Your task to perform on an android device: clear history in the chrome app Image 0: 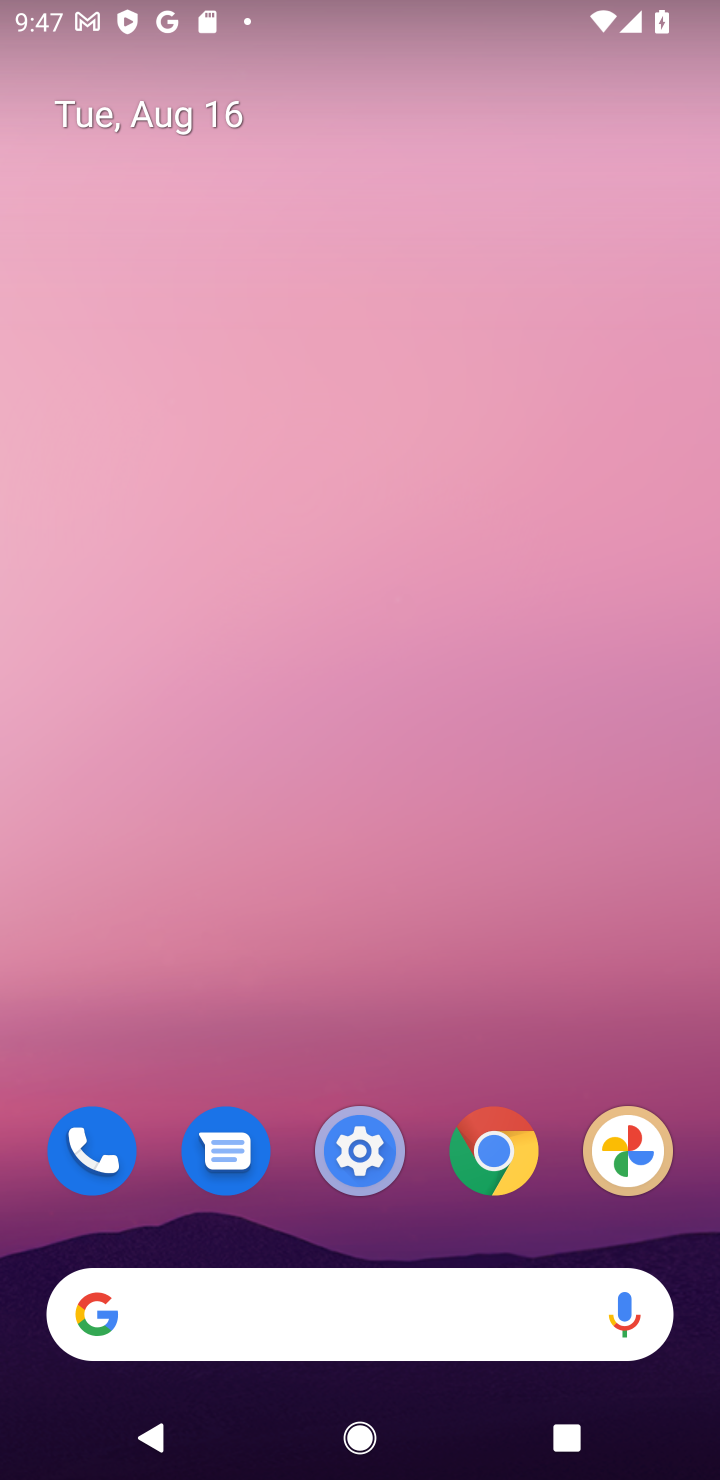
Step 0: click (508, 1143)
Your task to perform on an android device: clear history in the chrome app Image 1: 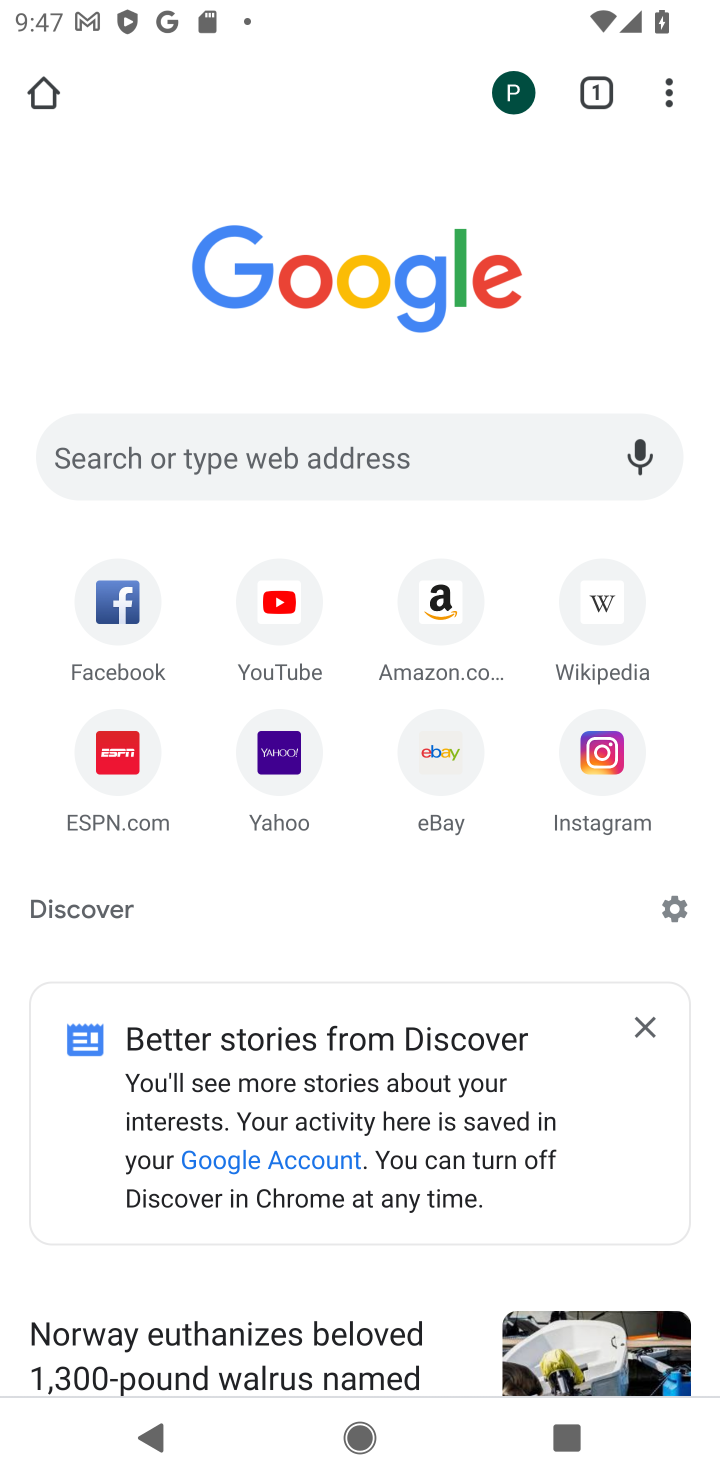
Step 1: click (668, 103)
Your task to perform on an android device: clear history in the chrome app Image 2: 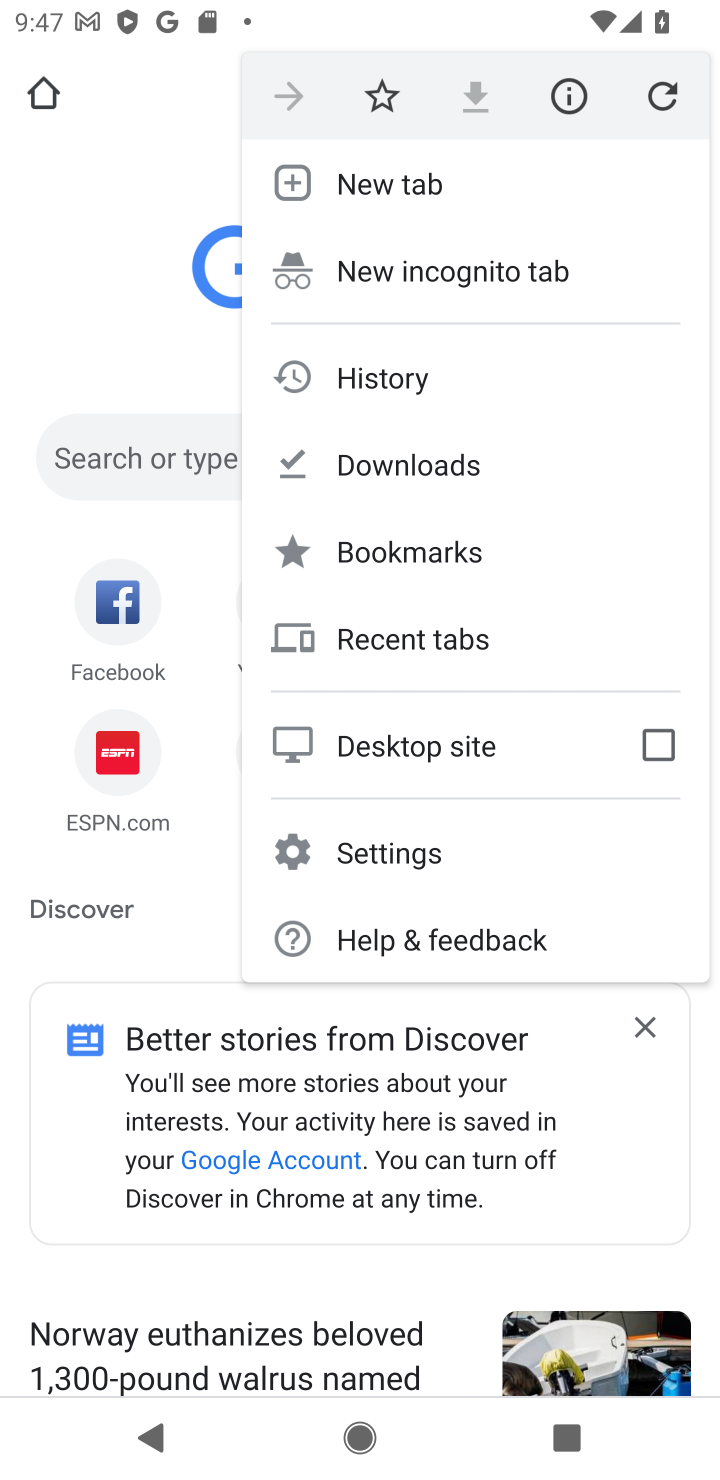
Step 2: click (408, 377)
Your task to perform on an android device: clear history in the chrome app Image 3: 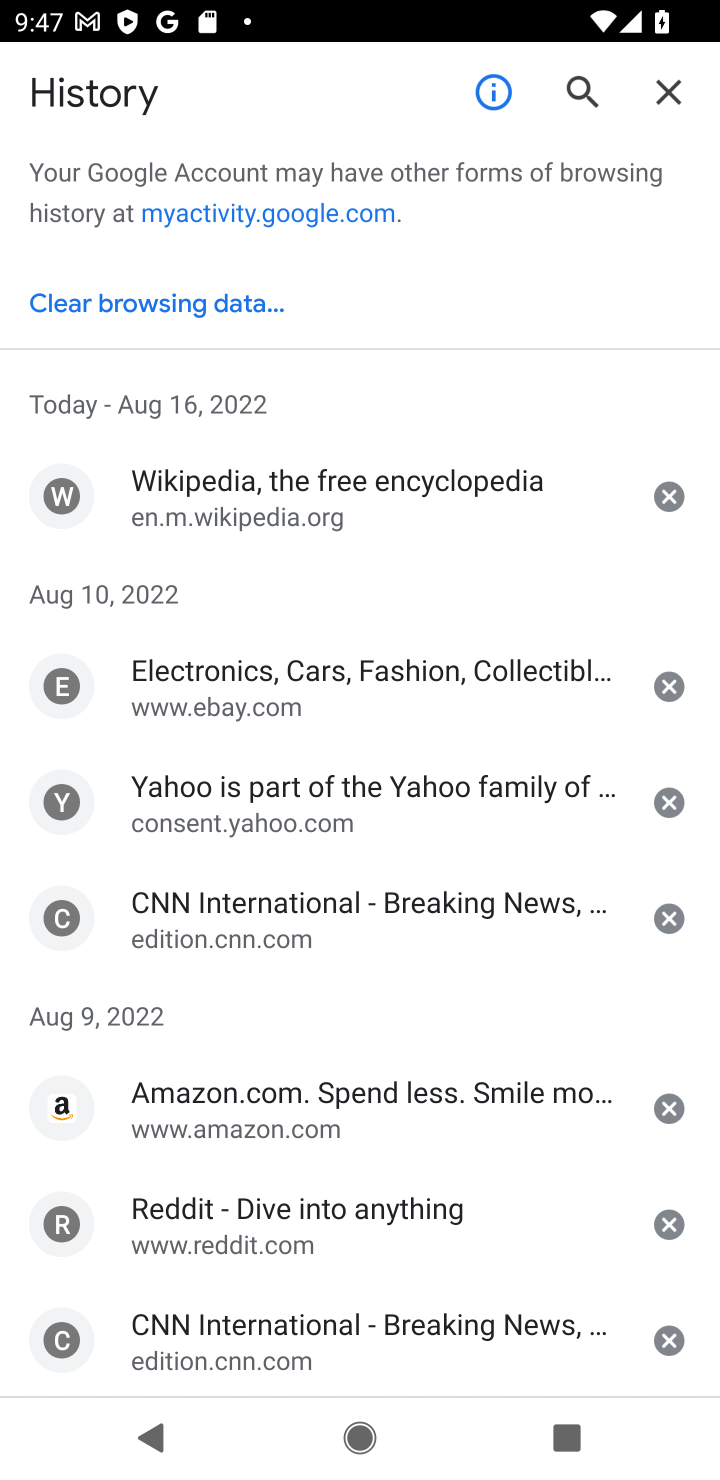
Step 3: click (222, 294)
Your task to perform on an android device: clear history in the chrome app Image 4: 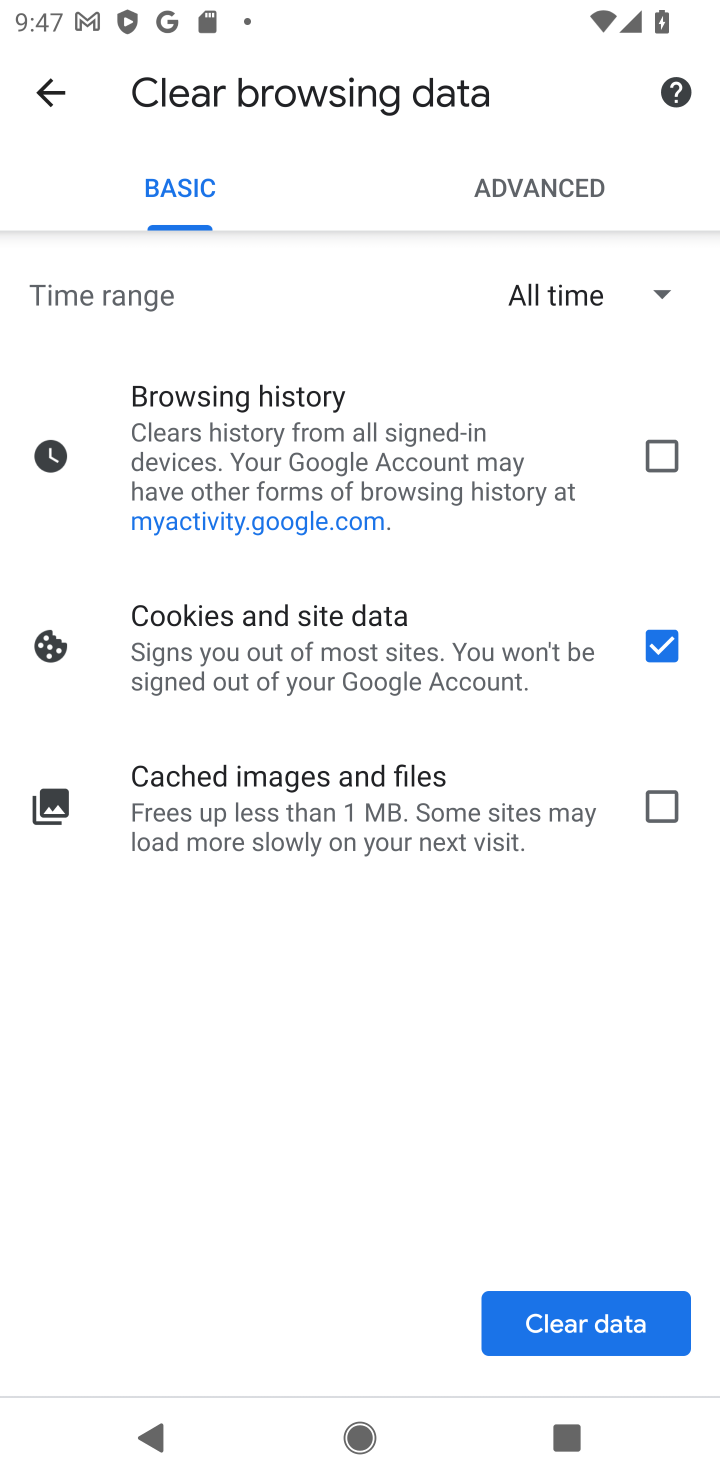
Step 4: click (651, 453)
Your task to perform on an android device: clear history in the chrome app Image 5: 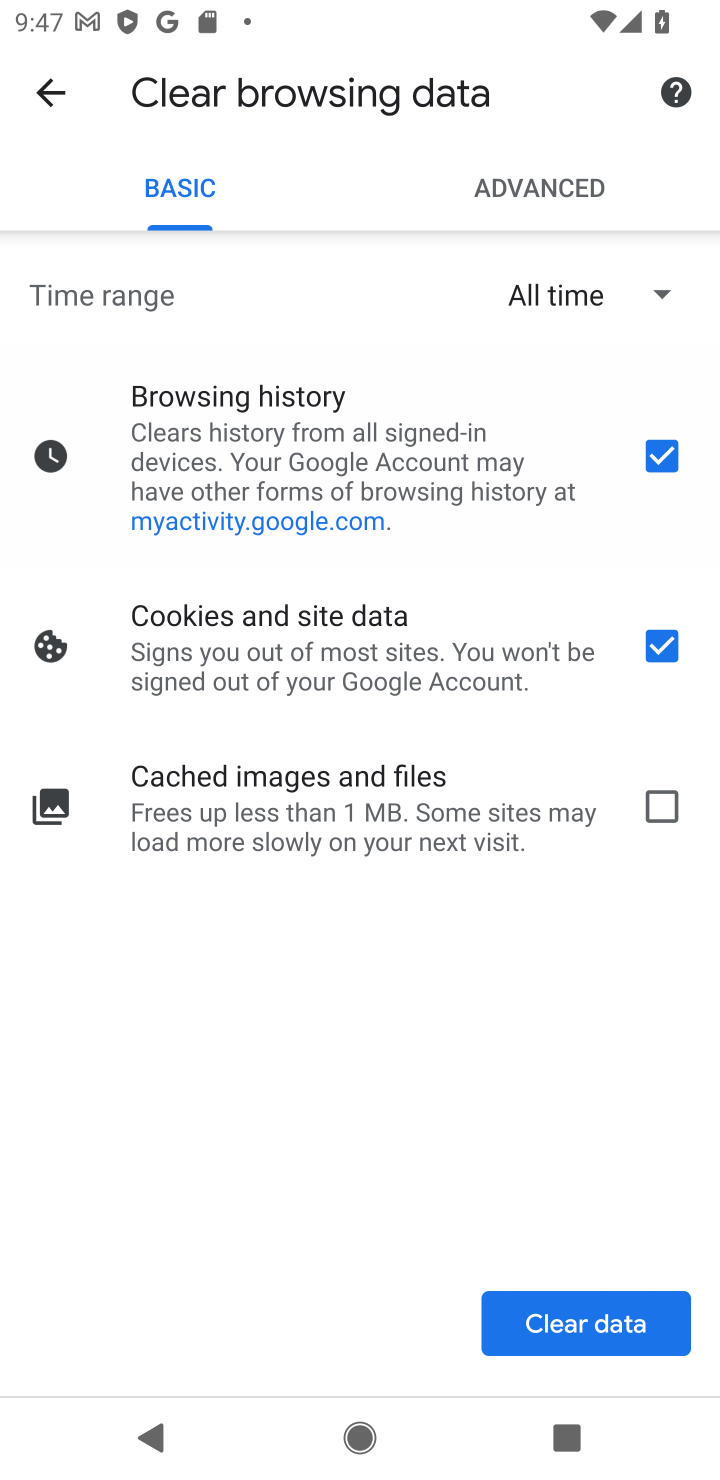
Step 5: click (657, 814)
Your task to perform on an android device: clear history in the chrome app Image 6: 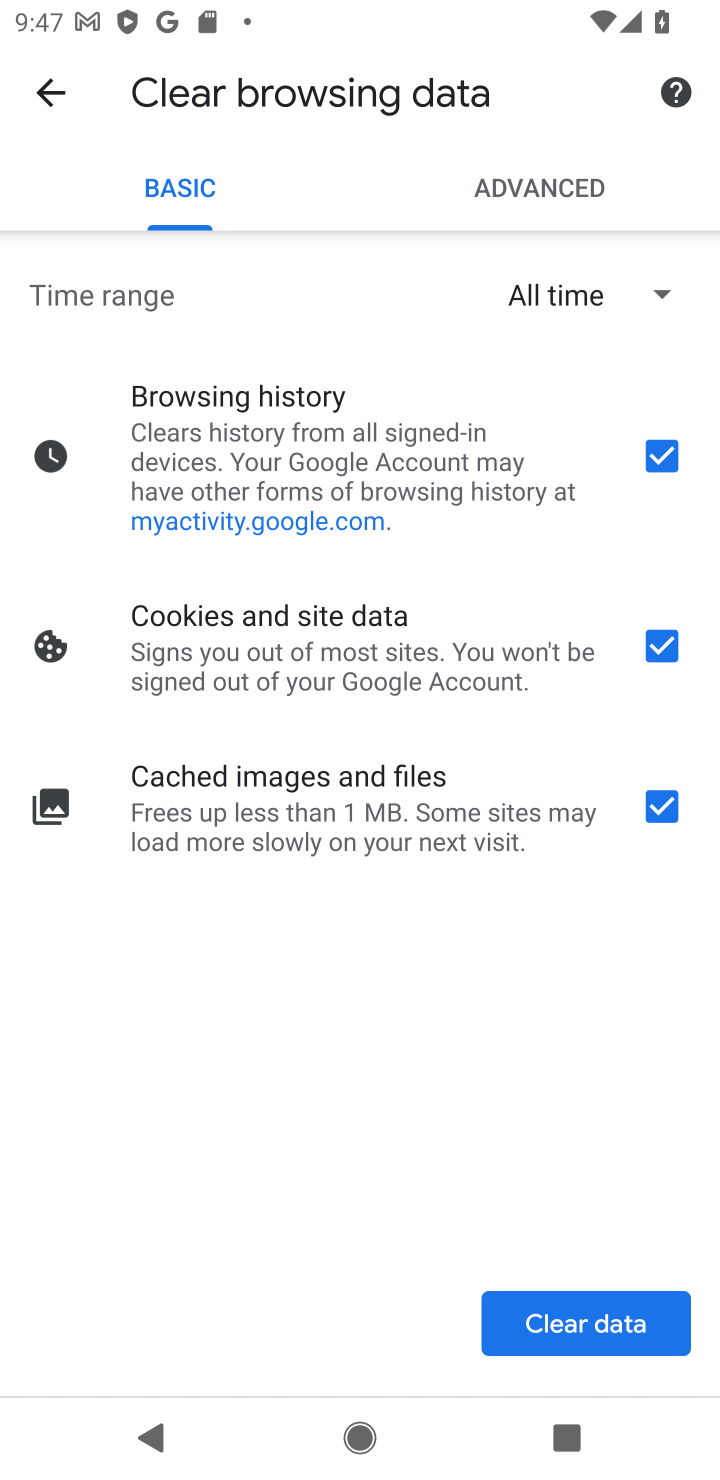
Step 6: click (541, 1315)
Your task to perform on an android device: clear history in the chrome app Image 7: 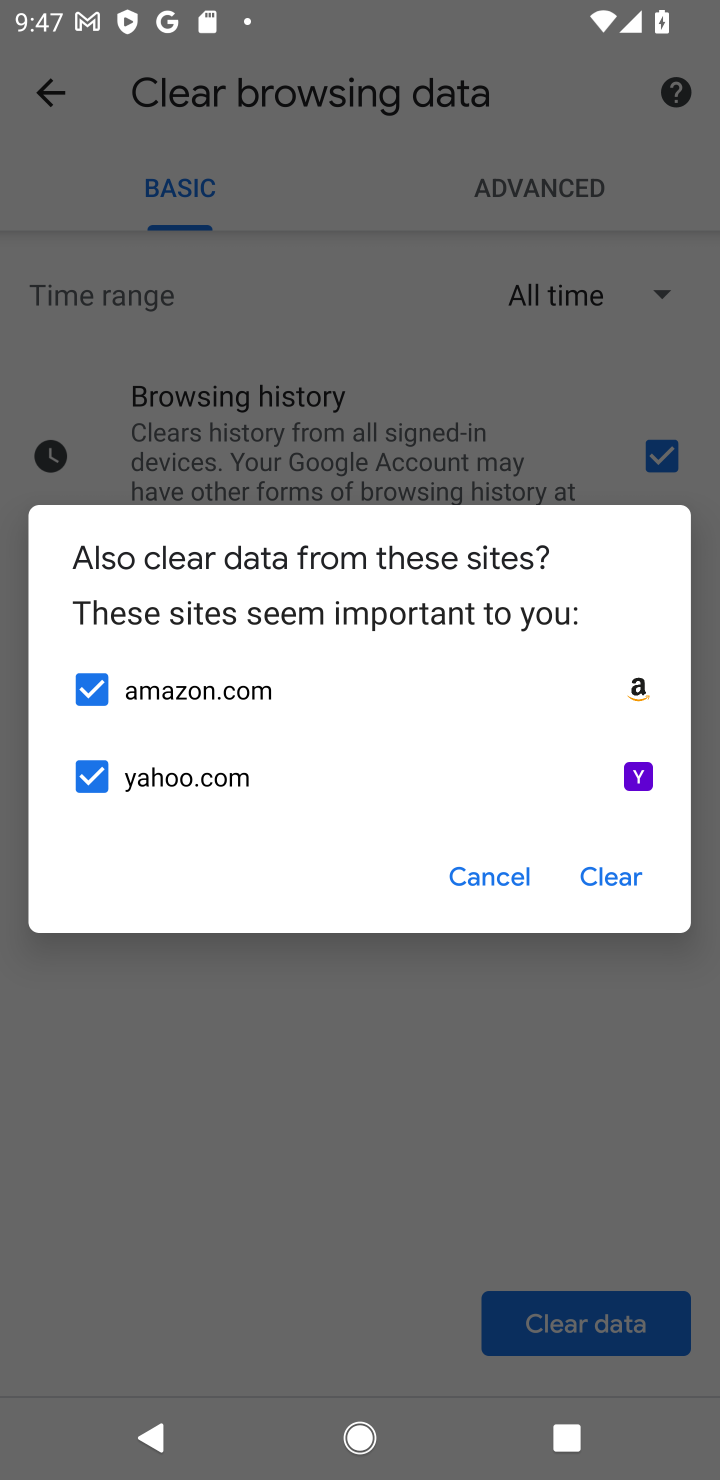
Step 7: click (605, 868)
Your task to perform on an android device: clear history in the chrome app Image 8: 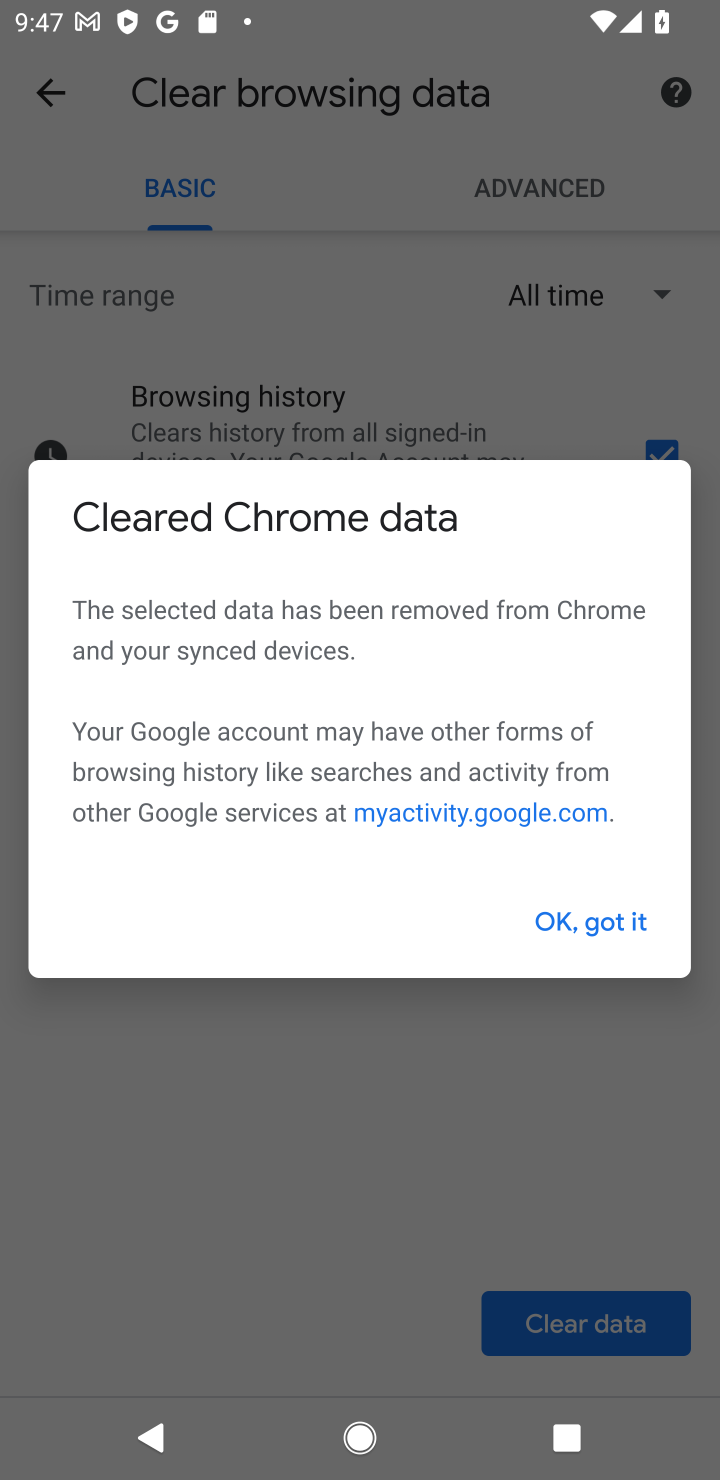
Step 8: click (594, 912)
Your task to perform on an android device: clear history in the chrome app Image 9: 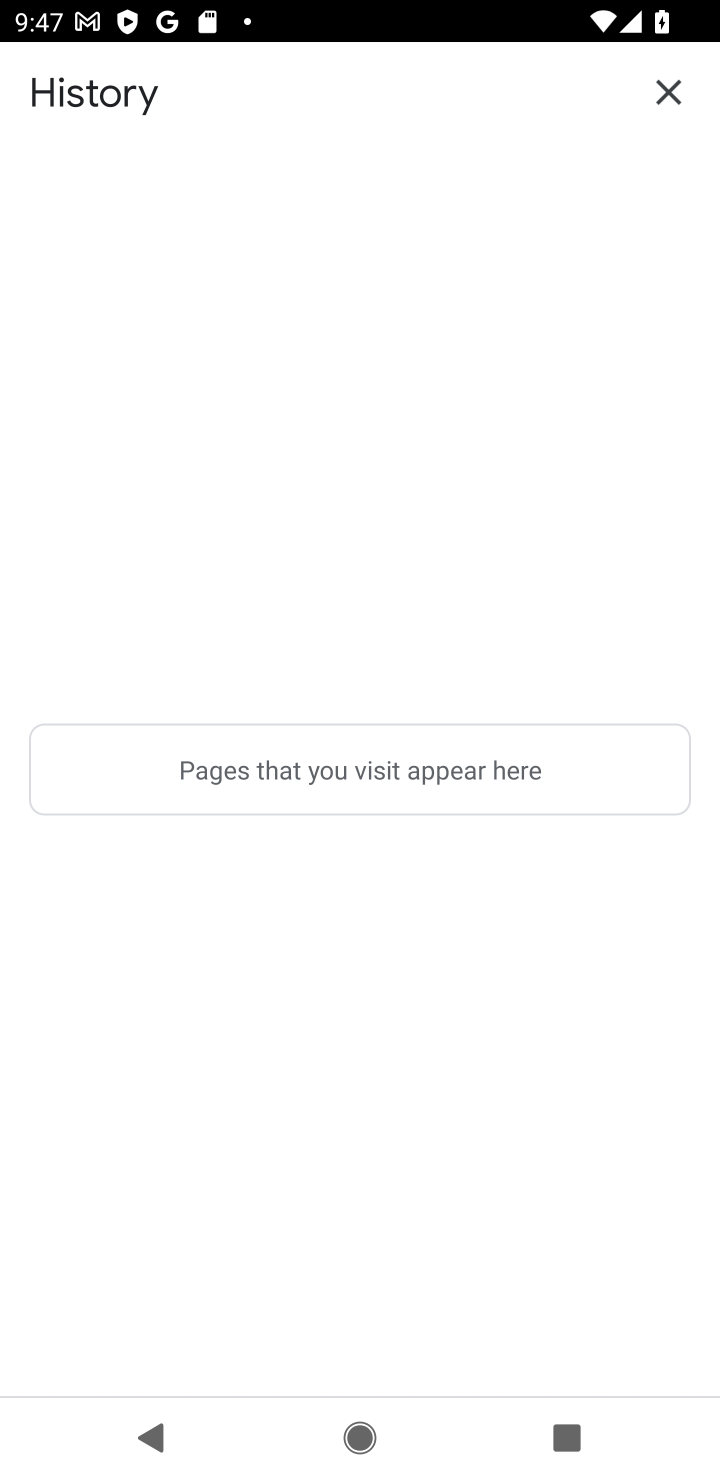
Step 9: task complete